Your task to perform on an android device: turn on translation in the chrome app Image 0: 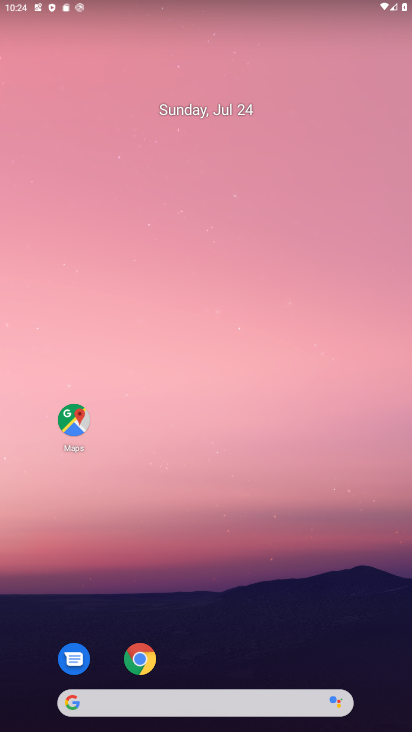
Step 0: click (131, 657)
Your task to perform on an android device: turn on translation in the chrome app Image 1: 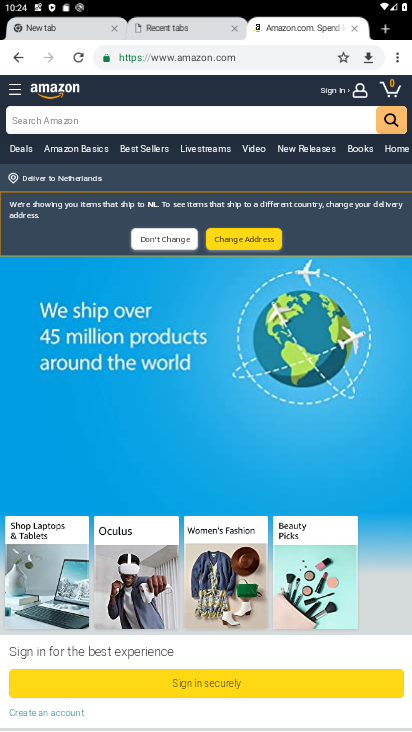
Step 1: click (393, 56)
Your task to perform on an android device: turn on translation in the chrome app Image 2: 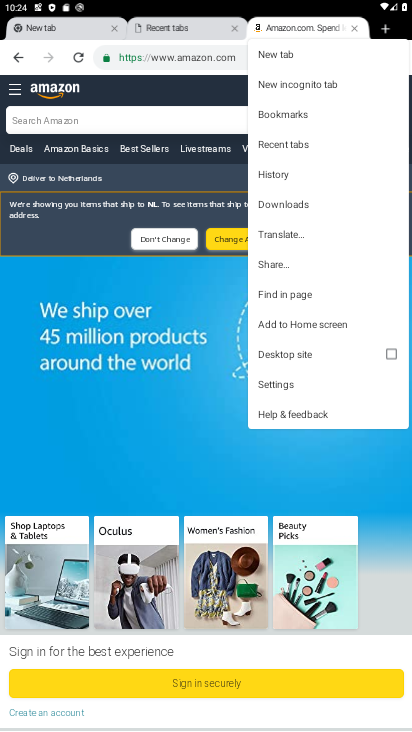
Step 2: click (269, 381)
Your task to perform on an android device: turn on translation in the chrome app Image 3: 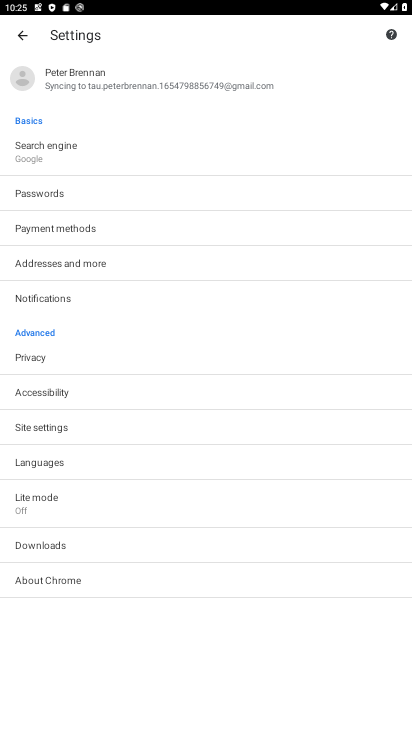
Step 3: click (78, 457)
Your task to perform on an android device: turn on translation in the chrome app Image 4: 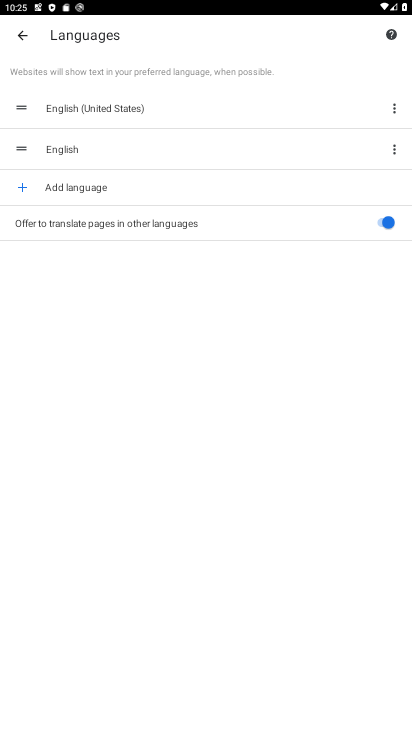
Step 4: task complete